Your task to perform on an android device: delete a single message in the gmail app Image 0: 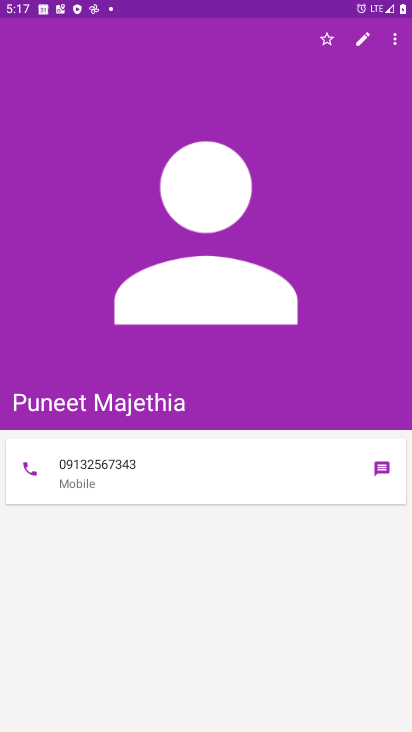
Step 0: press home button
Your task to perform on an android device: delete a single message in the gmail app Image 1: 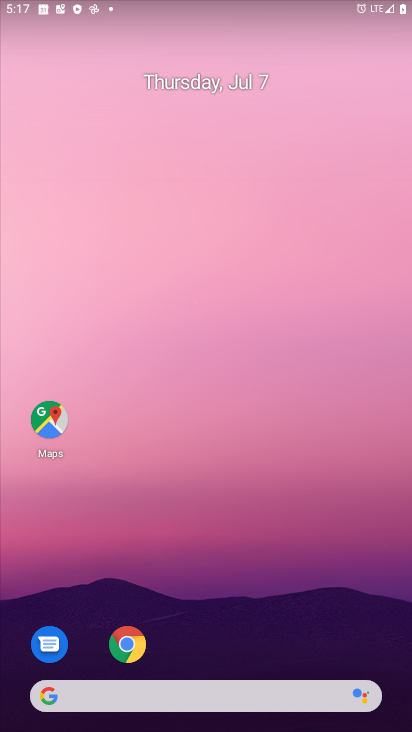
Step 1: drag from (199, 644) to (192, 142)
Your task to perform on an android device: delete a single message in the gmail app Image 2: 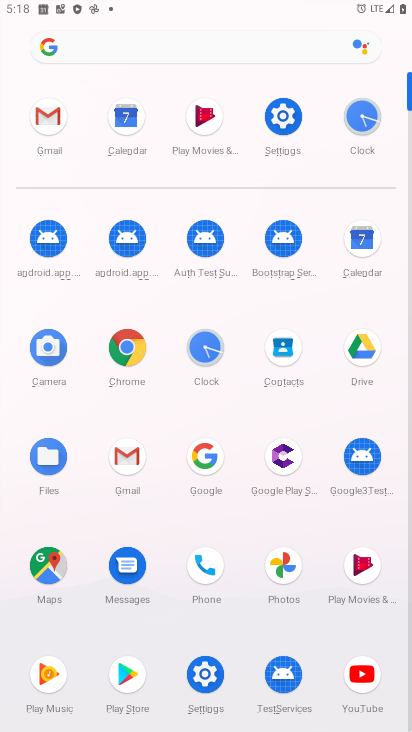
Step 2: click (125, 454)
Your task to perform on an android device: delete a single message in the gmail app Image 3: 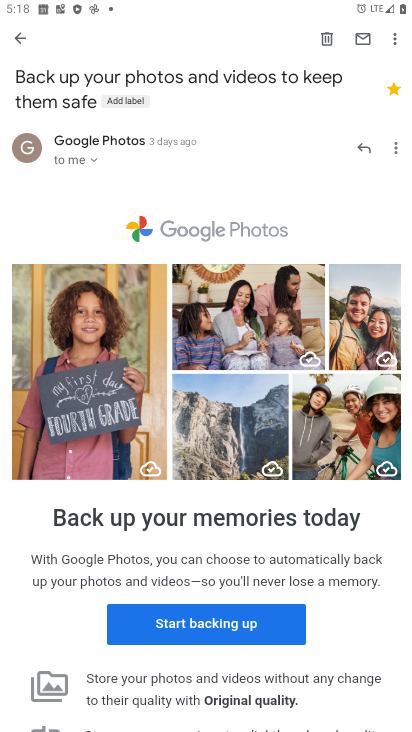
Step 3: click (329, 50)
Your task to perform on an android device: delete a single message in the gmail app Image 4: 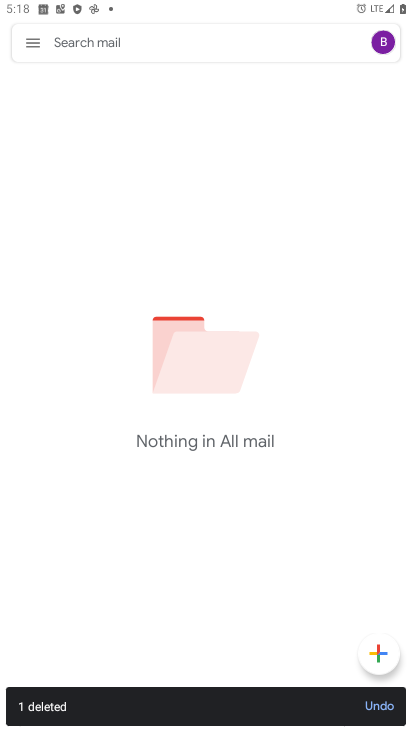
Step 4: task complete